Your task to perform on an android device: check storage Image 0: 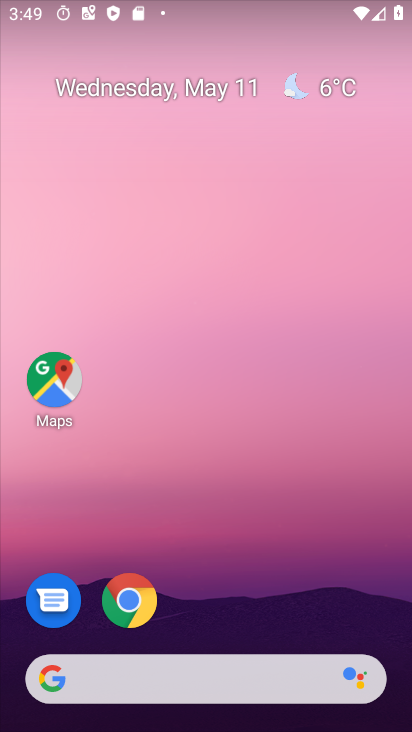
Step 0: drag from (319, 706) to (175, 94)
Your task to perform on an android device: check storage Image 1: 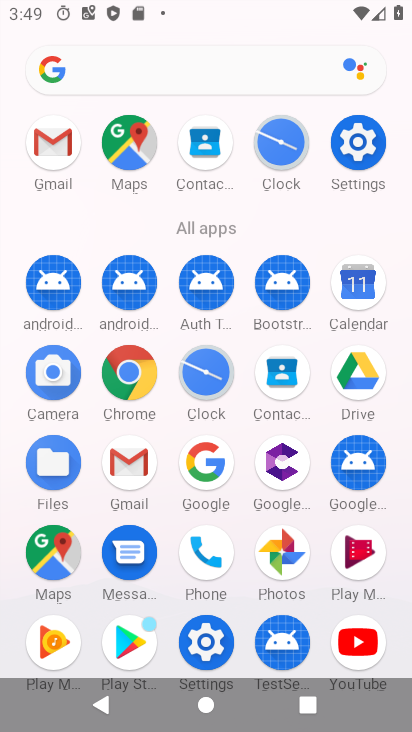
Step 1: click (362, 146)
Your task to perform on an android device: check storage Image 2: 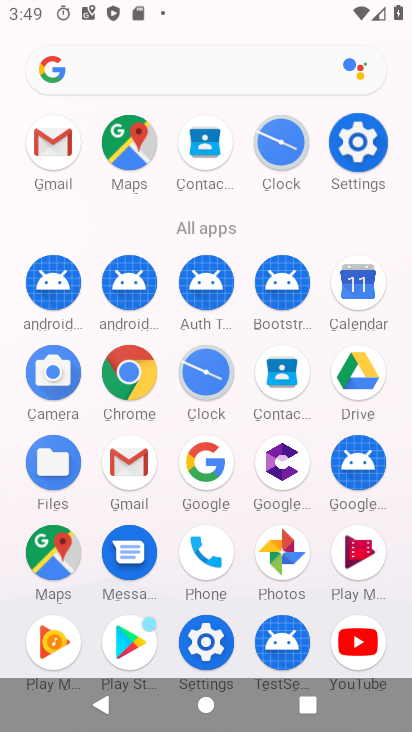
Step 2: click (362, 146)
Your task to perform on an android device: check storage Image 3: 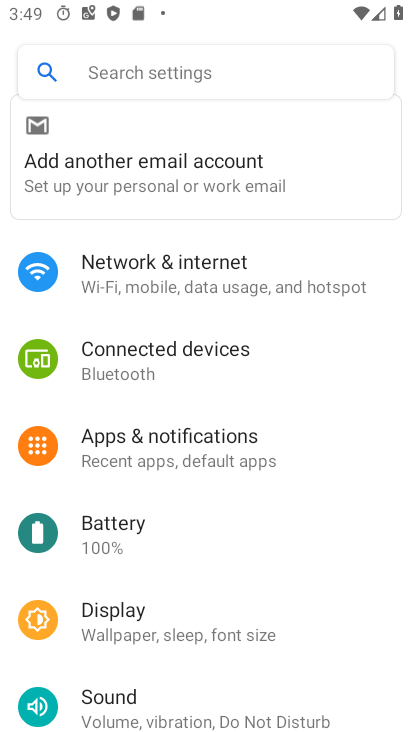
Step 3: drag from (124, 533) to (70, 53)
Your task to perform on an android device: check storage Image 4: 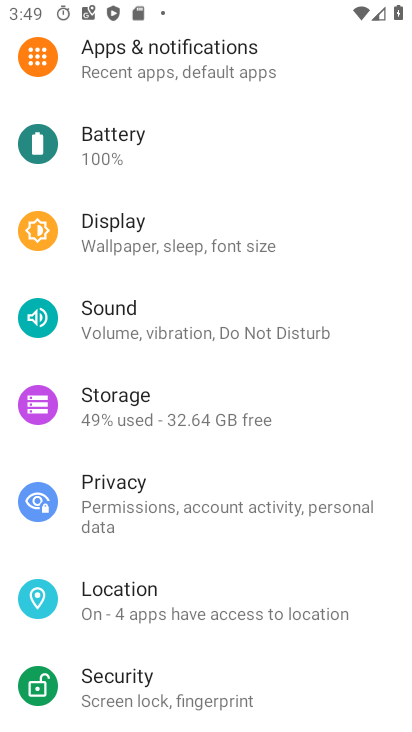
Step 4: click (114, 405)
Your task to perform on an android device: check storage Image 5: 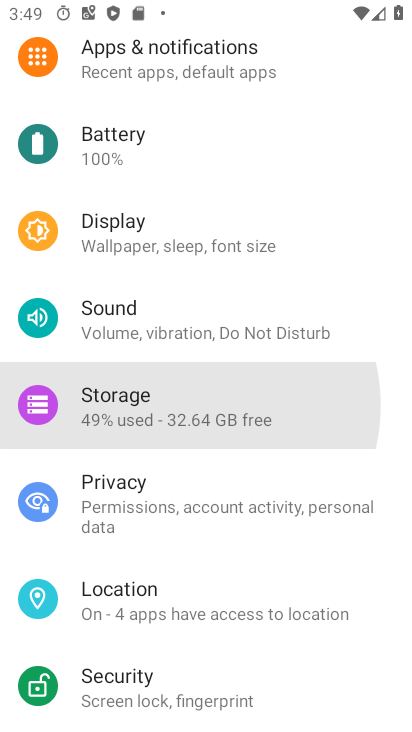
Step 5: click (114, 405)
Your task to perform on an android device: check storage Image 6: 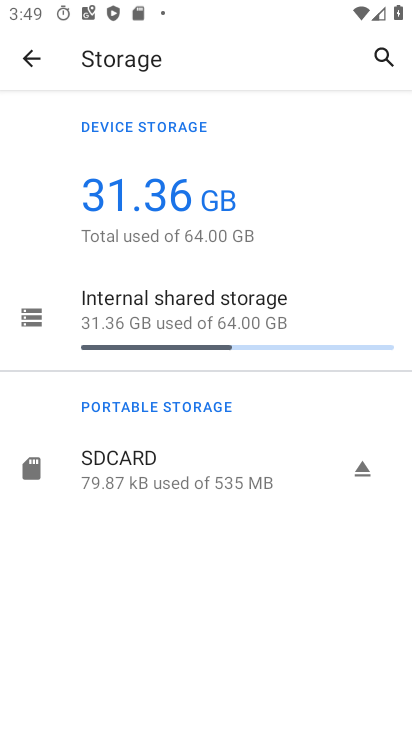
Step 6: task complete